Your task to perform on an android device: Open Maps and search for coffee Image 0: 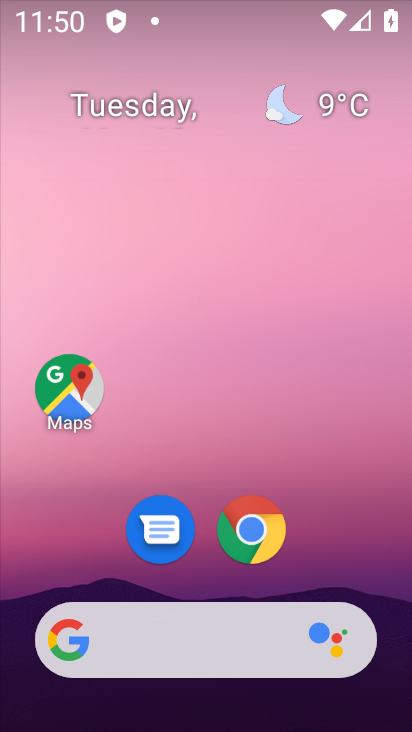
Step 0: click (89, 404)
Your task to perform on an android device: Open Maps and search for coffee Image 1: 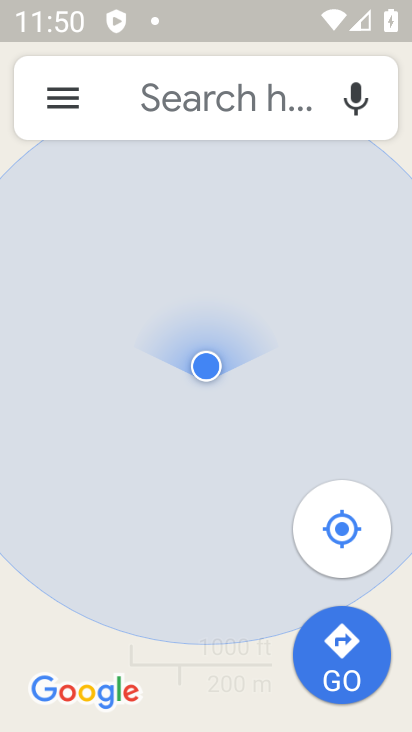
Step 1: click (207, 100)
Your task to perform on an android device: Open Maps and search for coffee Image 2: 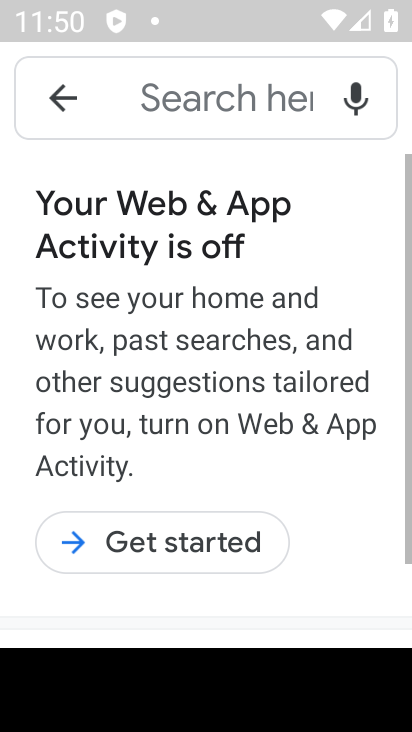
Step 2: click (207, 106)
Your task to perform on an android device: Open Maps and search for coffee Image 3: 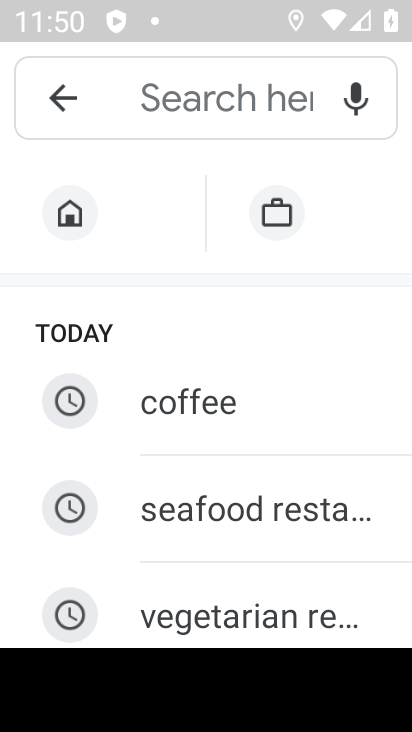
Step 3: click (175, 412)
Your task to perform on an android device: Open Maps and search for coffee Image 4: 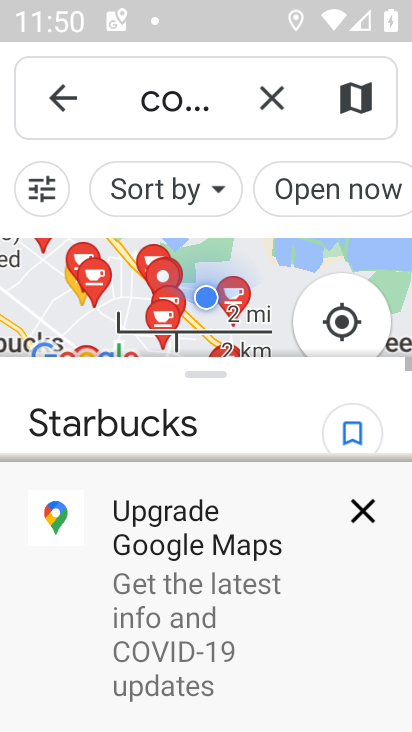
Step 4: task complete